Your task to perform on an android device: Search for dell xps on ebay, select the first entry, add it to the cart, then select checkout. Image 0: 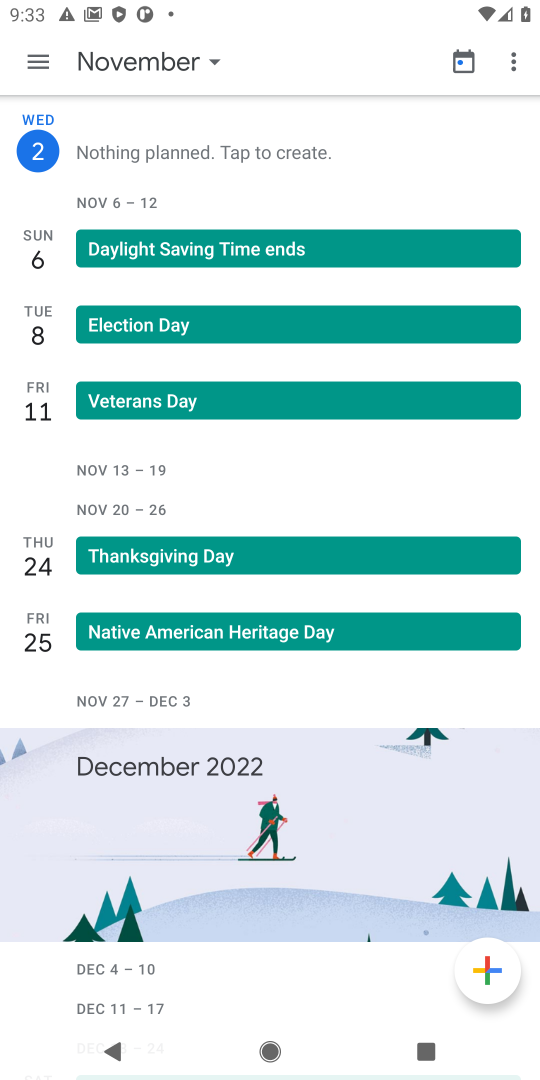
Step 0: press home button
Your task to perform on an android device: Search for dell xps on ebay, select the first entry, add it to the cart, then select checkout. Image 1: 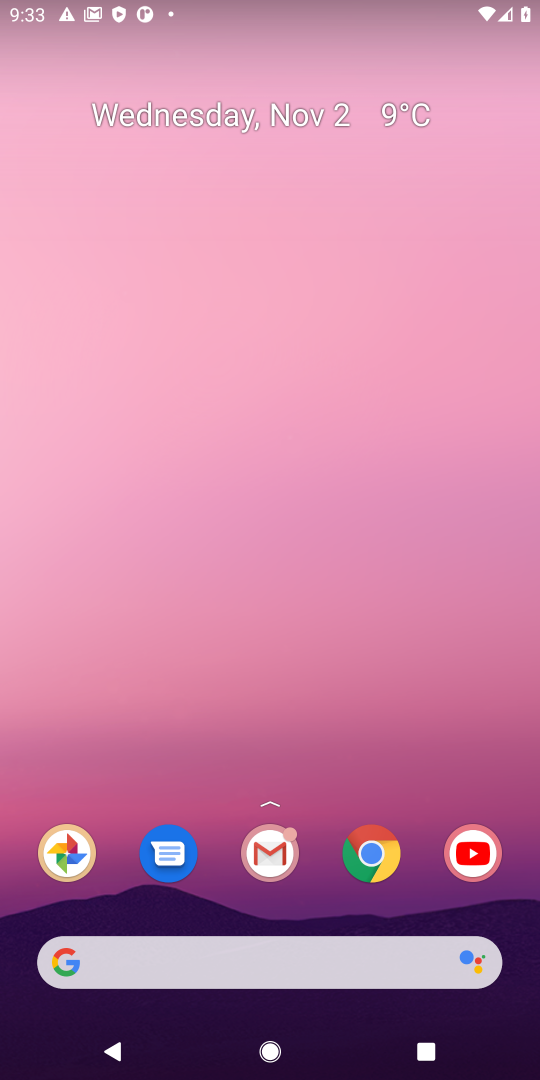
Step 1: click (362, 854)
Your task to perform on an android device: Search for dell xps on ebay, select the first entry, add it to the cart, then select checkout. Image 2: 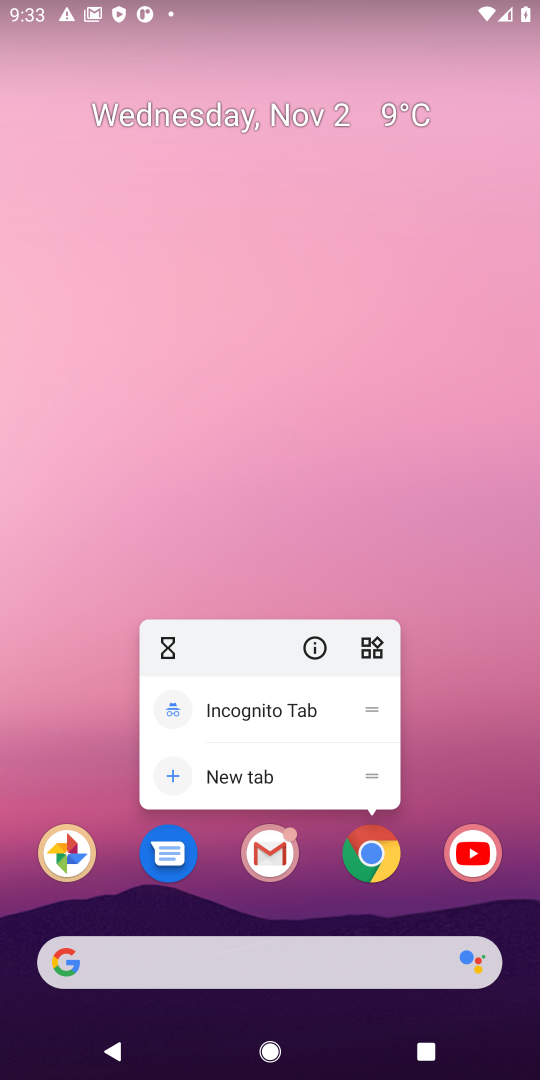
Step 2: click (376, 849)
Your task to perform on an android device: Search for dell xps on ebay, select the first entry, add it to the cart, then select checkout. Image 3: 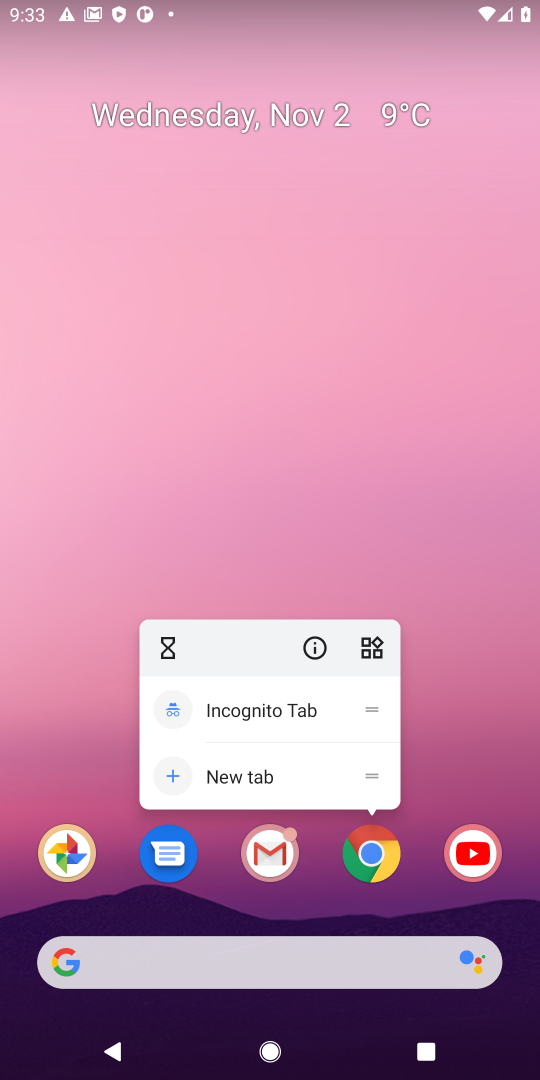
Step 3: click (356, 852)
Your task to perform on an android device: Search for dell xps on ebay, select the first entry, add it to the cart, then select checkout. Image 4: 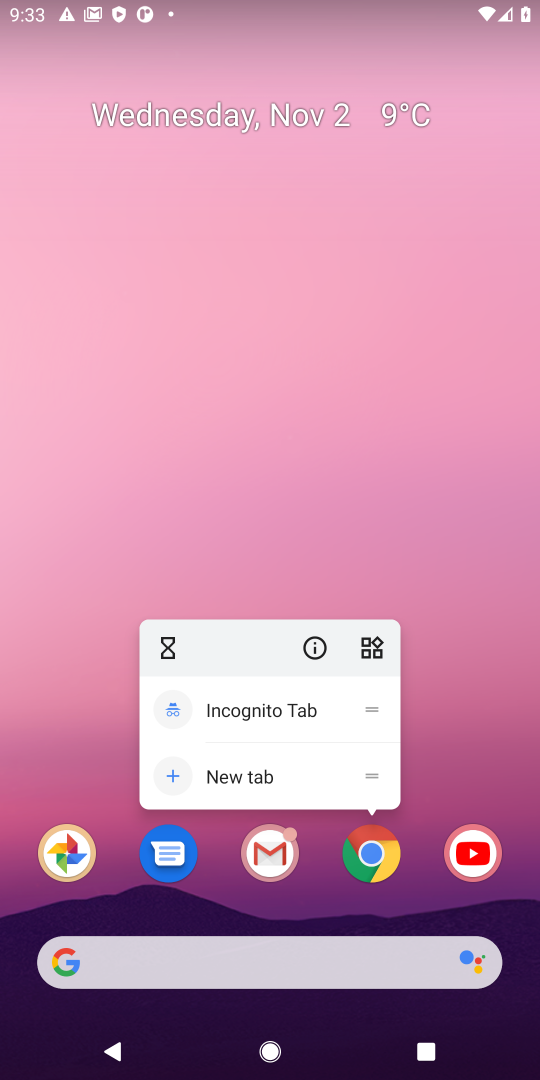
Step 4: click (366, 851)
Your task to perform on an android device: Search for dell xps on ebay, select the first entry, add it to the cart, then select checkout. Image 5: 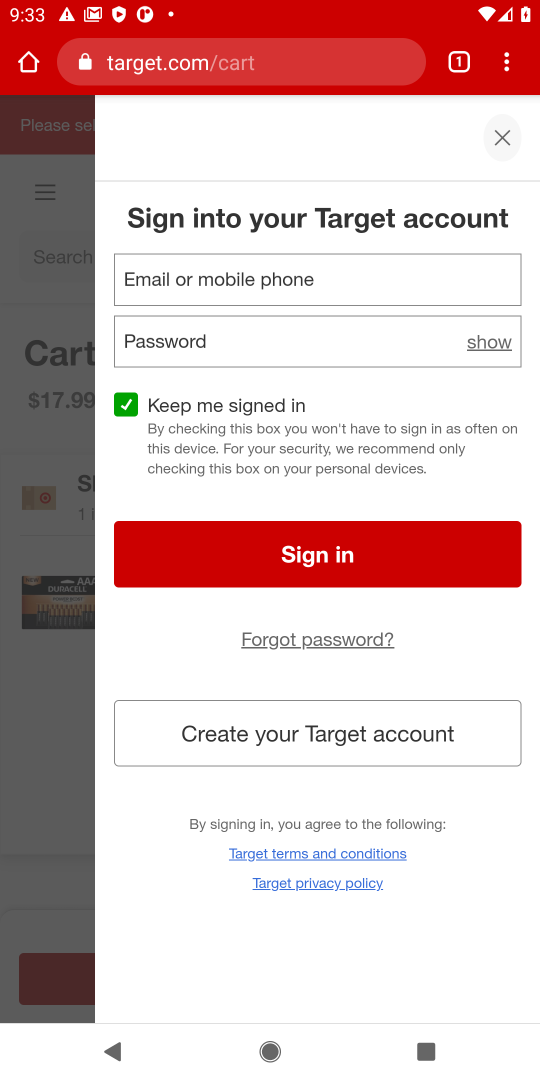
Step 5: click (299, 74)
Your task to perform on an android device: Search for dell xps on ebay, select the first entry, add it to the cart, then select checkout. Image 6: 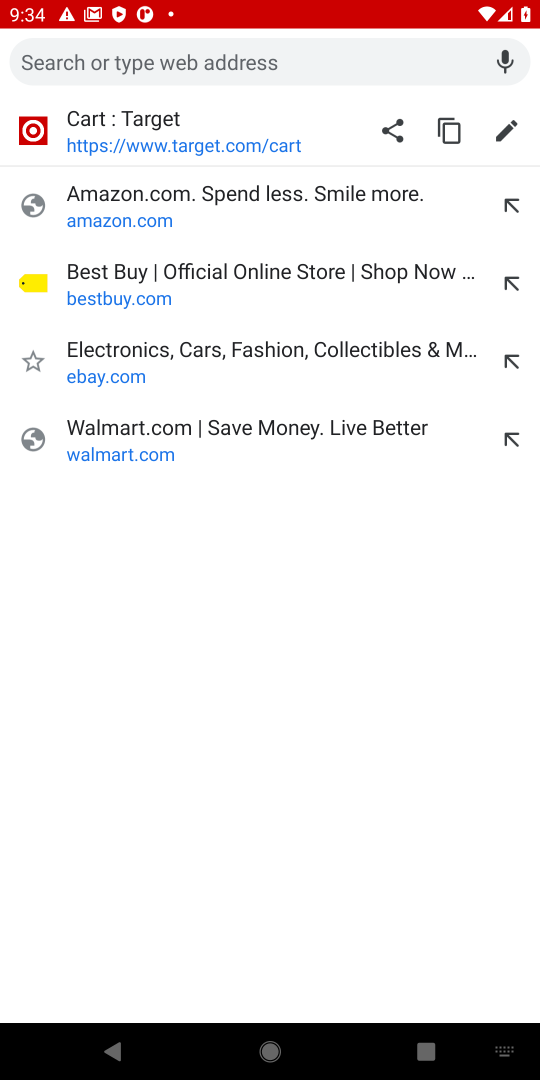
Step 6: type "ebay"
Your task to perform on an android device: Search for dell xps on ebay, select the first entry, add it to the cart, then select checkout. Image 7: 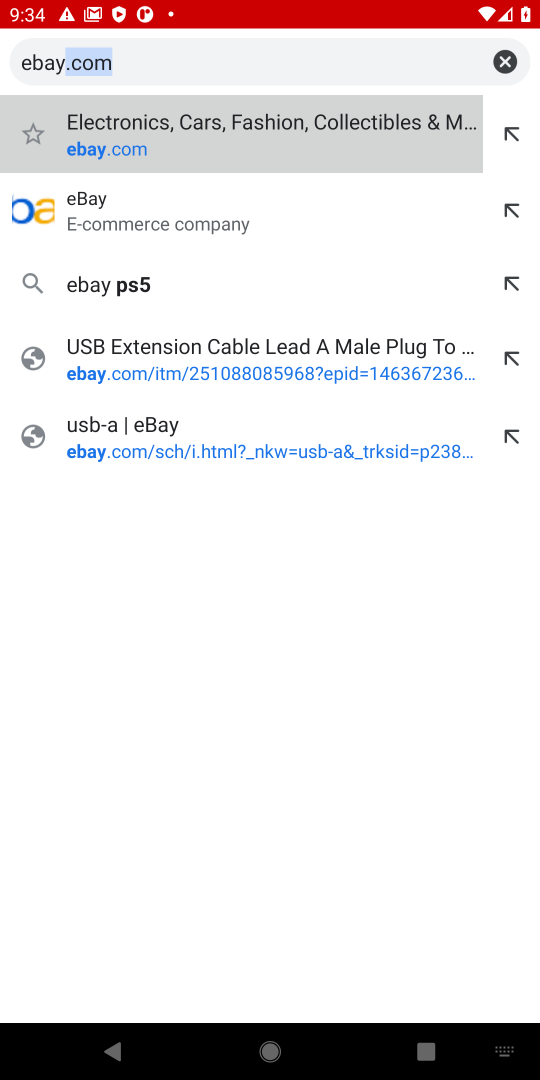
Step 7: press enter
Your task to perform on an android device: Search for dell xps on ebay, select the first entry, add it to the cart, then select checkout. Image 8: 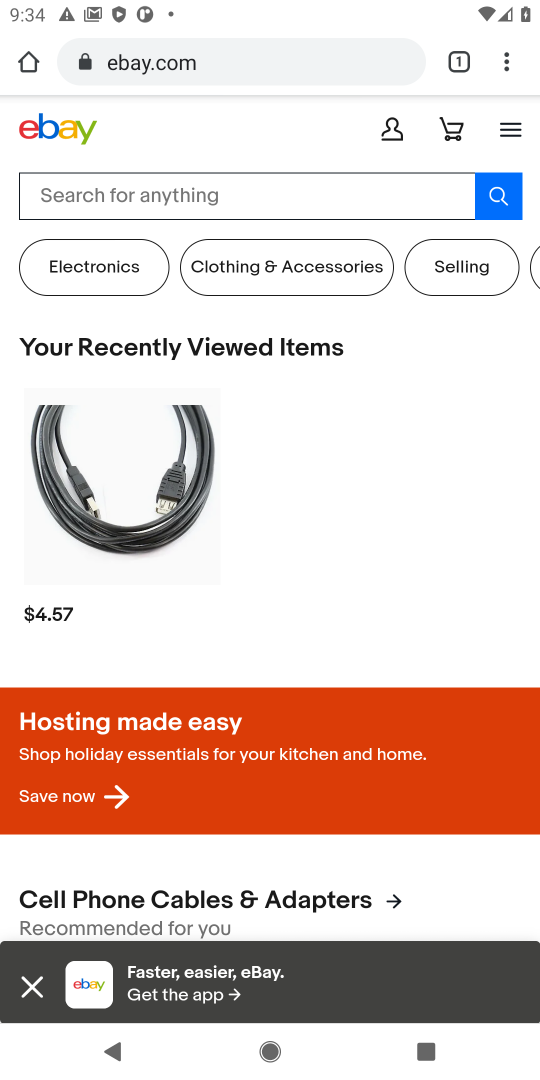
Step 8: click (217, 201)
Your task to perform on an android device: Search for dell xps on ebay, select the first entry, add it to the cart, then select checkout. Image 9: 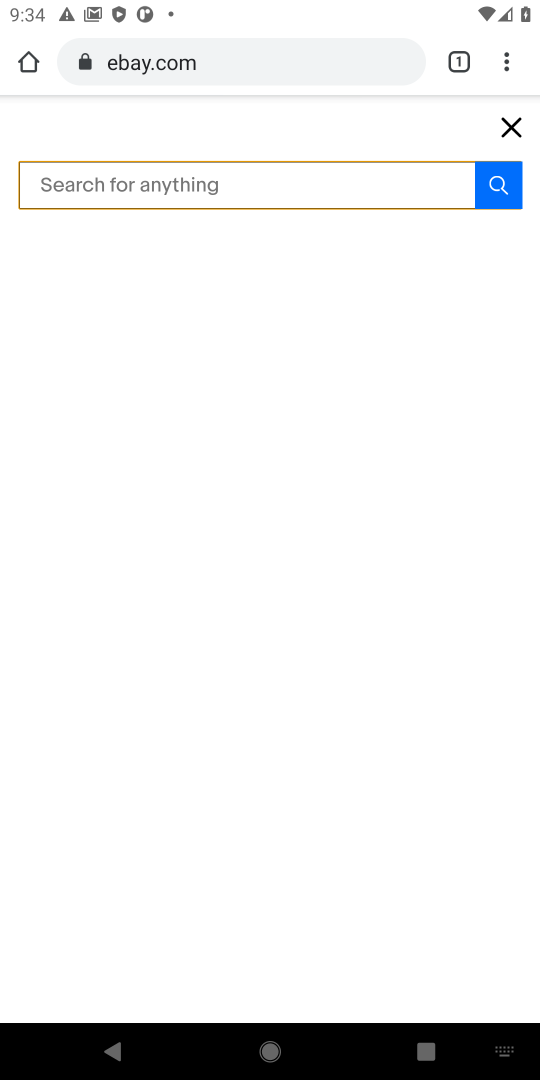
Step 9: type "dell xps"
Your task to perform on an android device: Search for dell xps on ebay, select the first entry, add it to the cart, then select checkout. Image 10: 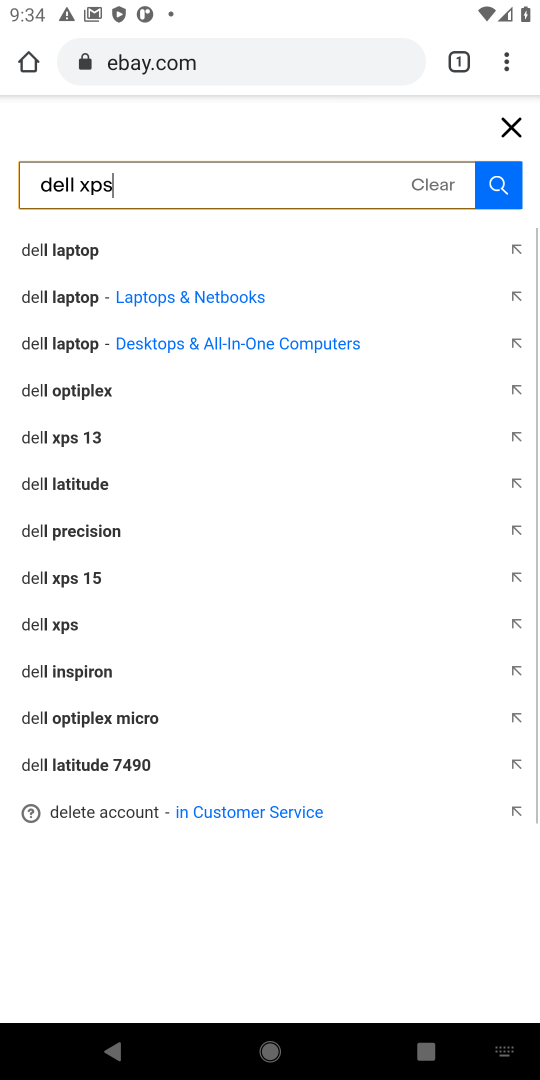
Step 10: press enter
Your task to perform on an android device: Search for dell xps on ebay, select the first entry, add it to the cart, then select checkout. Image 11: 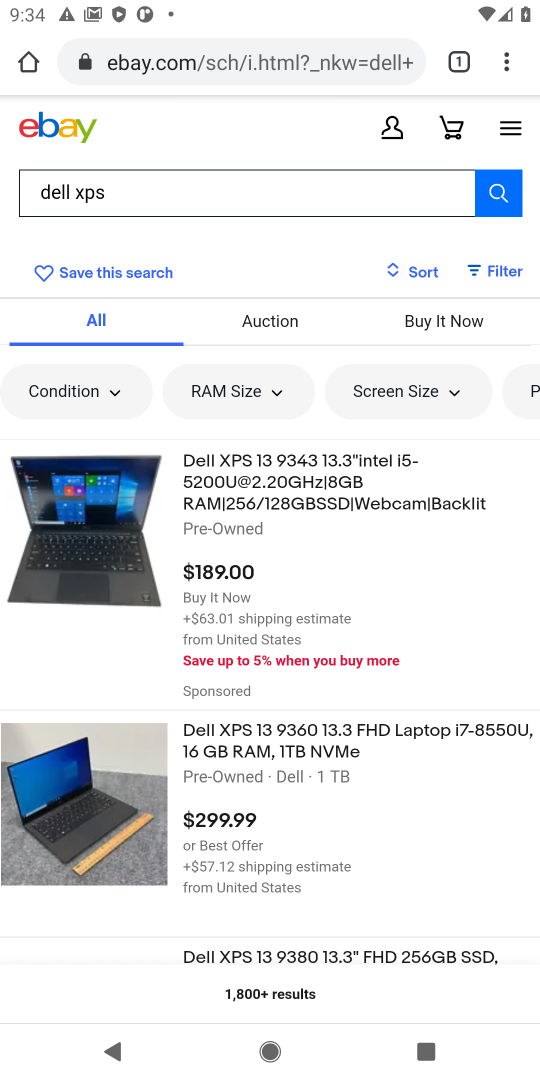
Step 11: click (235, 496)
Your task to perform on an android device: Search for dell xps on ebay, select the first entry, add it to the cart, then select checkout. Image 12: 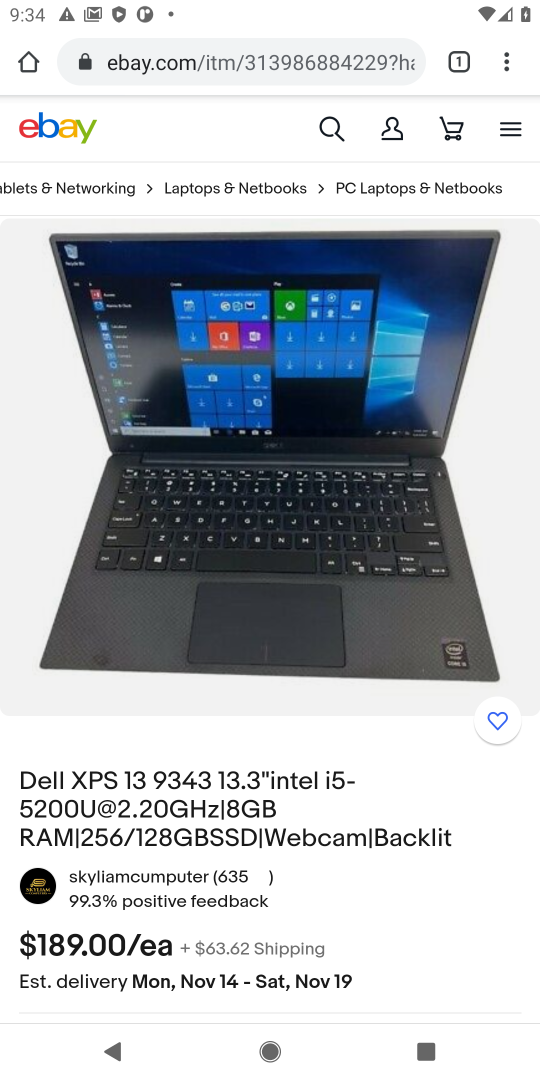
Step 12: drag from (230, 948) to (455, 213)
Your task to perform on an android device: Search for dell xps on ebay, select the first entry, add it to the cart, then select checkout. Image 13: 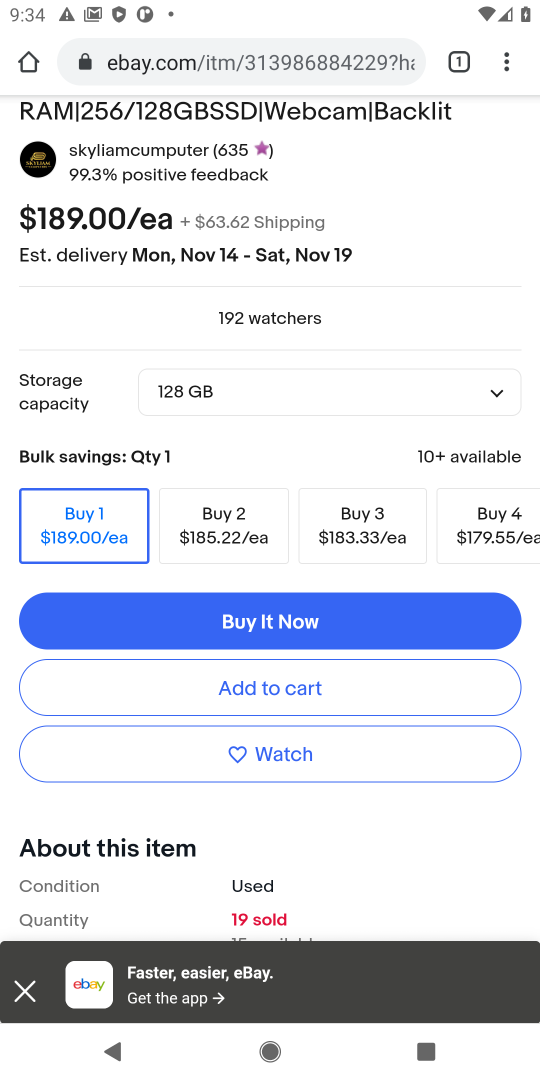
Step 13: click (284, 679)
Your task to perform on an android device: Search for dell xps on ebay, select the first entry, add it to the cart, then select checkout. Image 14: 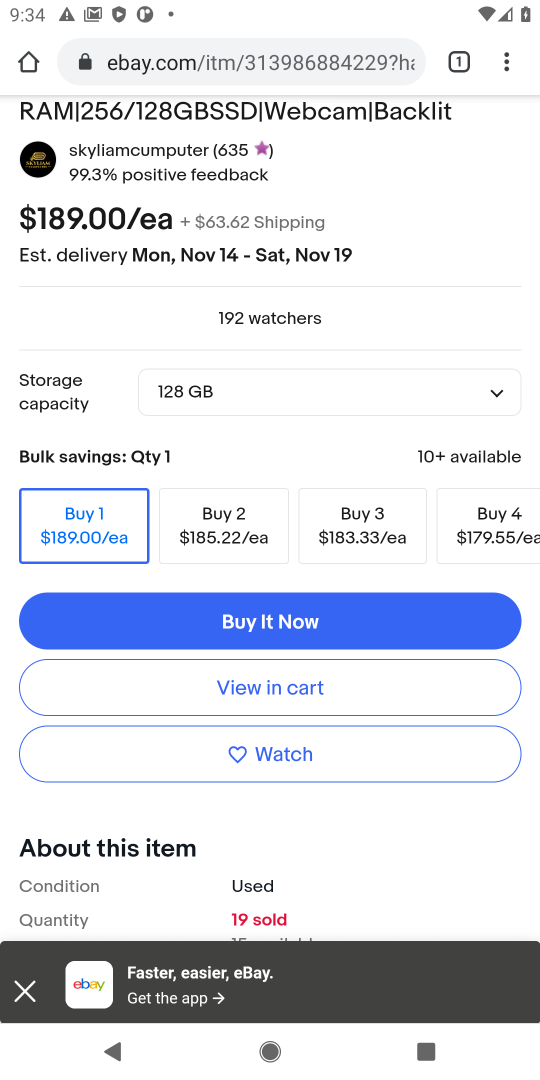
Step 14: click (303, 687)
Your task to perform on an android device: Search for dell xps on ebay, select the first entry, add it to the cart, then select checkout. Image 15: 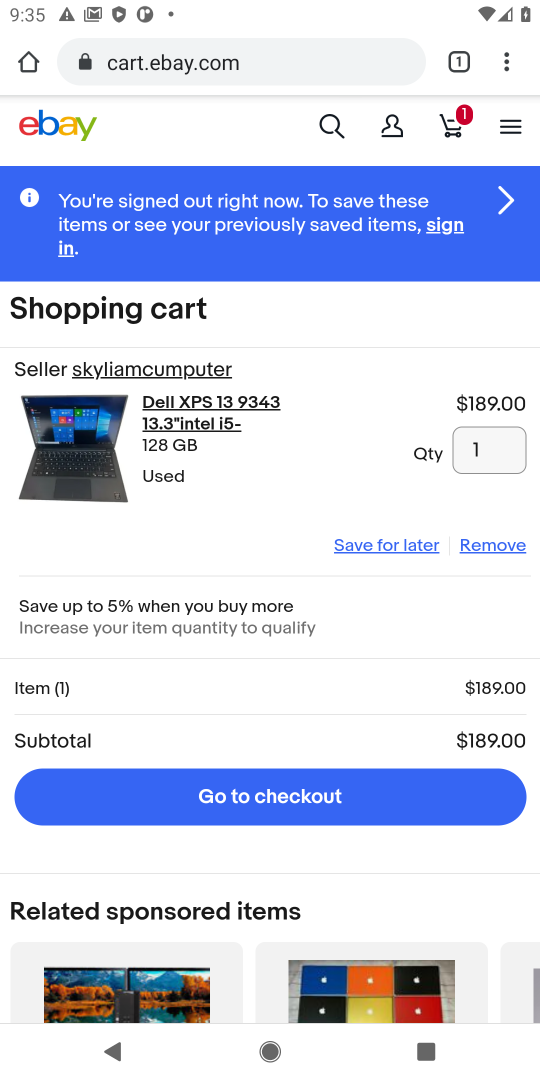
Step 15: click (311, 788)
Your task to perform on an android device: Search for dell xps on ebay, select the first entry, add it to the cart, then select checkout. Image 16: 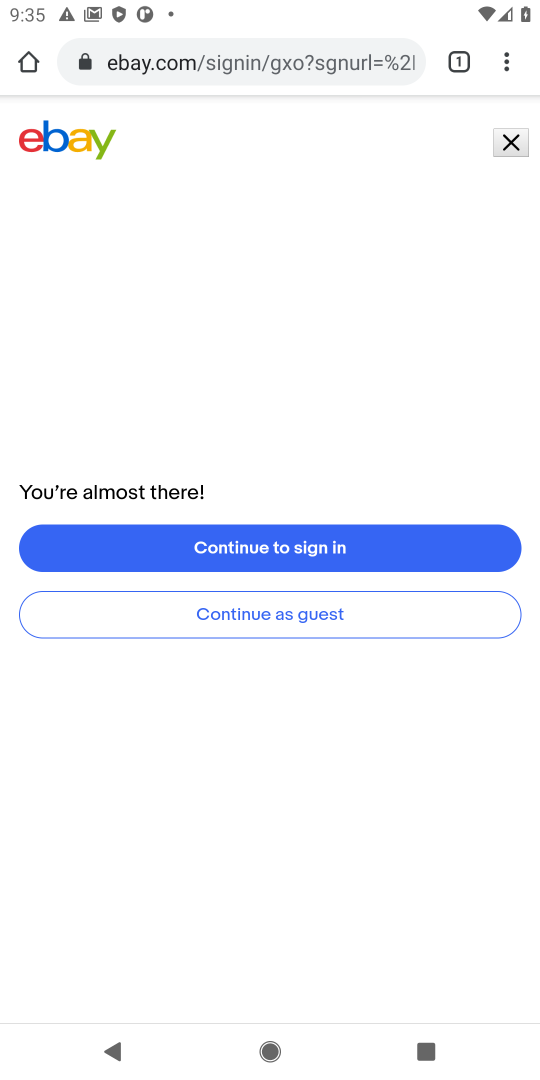
Step 16: task complete